Your task to perform on an android device: Open display settings Image 0: 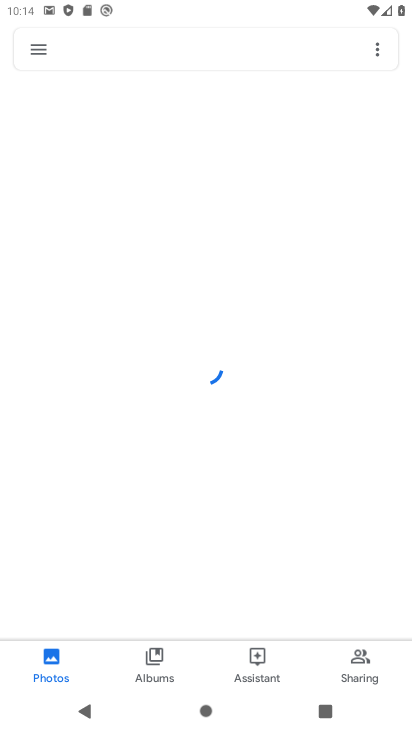
Step 0: drag from (149, 606) to (219, 182)
Your task to perform on an android device: Open display settings Image 1: 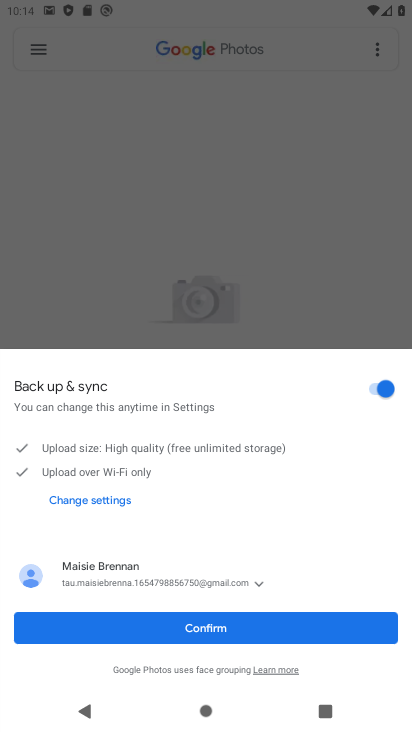
Step 1: press home button
Your task to perform on an android device: Open display settings Image 2: 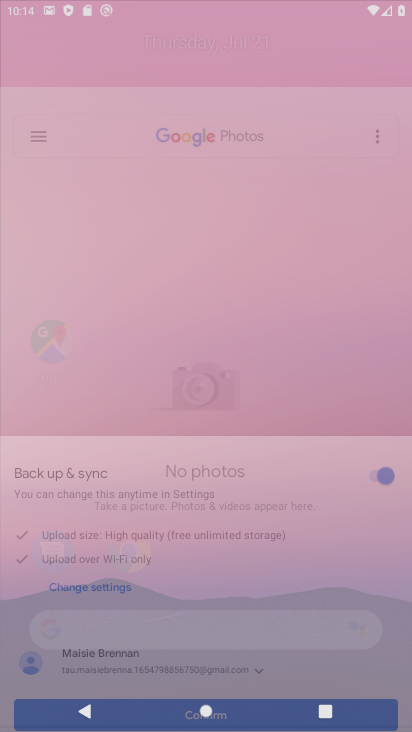
Step 2: drag from (194, 613) to (231, 177)
Your task to perform on an android device: Open display settings Image 3: 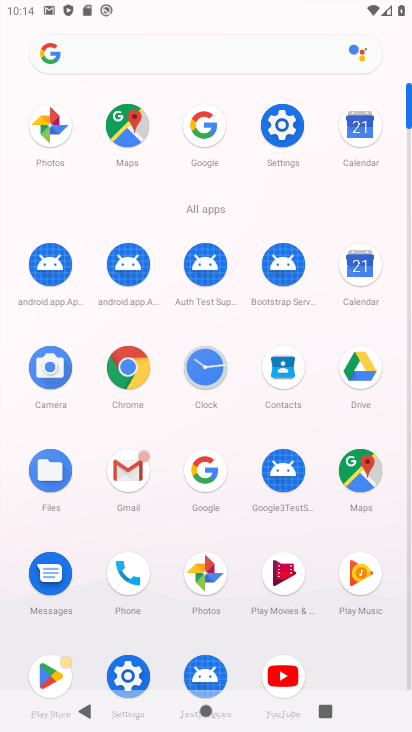
Step 3: click (282, 125)
Your task to perform on an android device: Open display settings Image 4: 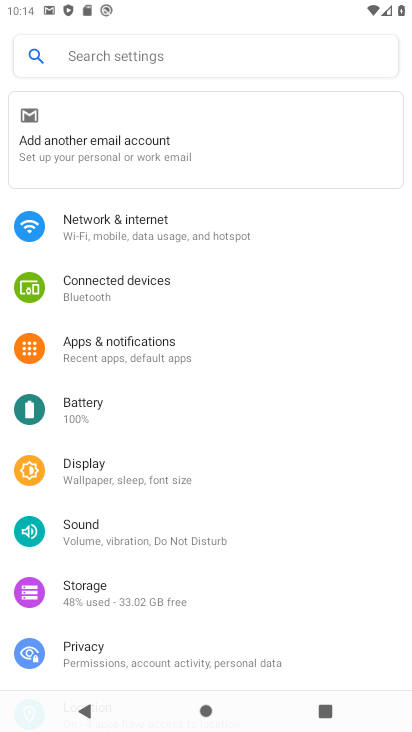
Step 4: click (100, 475)
Your task to perform on an android device: Open display settings Image 5: 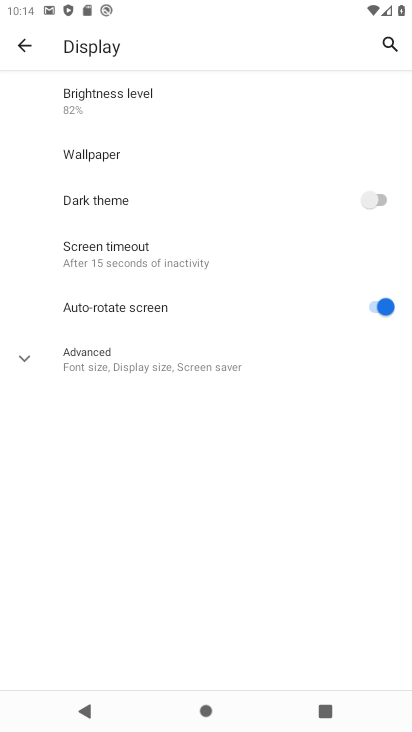
Step 5: task complete